Your task to perform on an android device: Open calendar and show me the first week of next month Image 0: 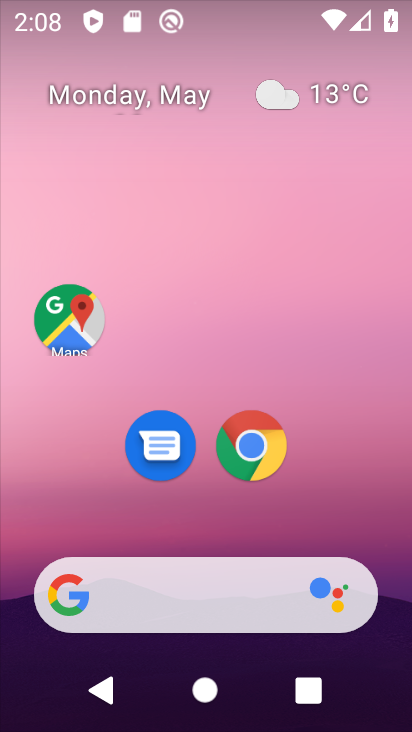
Step 0: drag from (349, 564) to (319, 3)
Your task to perform on an android device: Open calendar and show me the first week of next month Image 1: 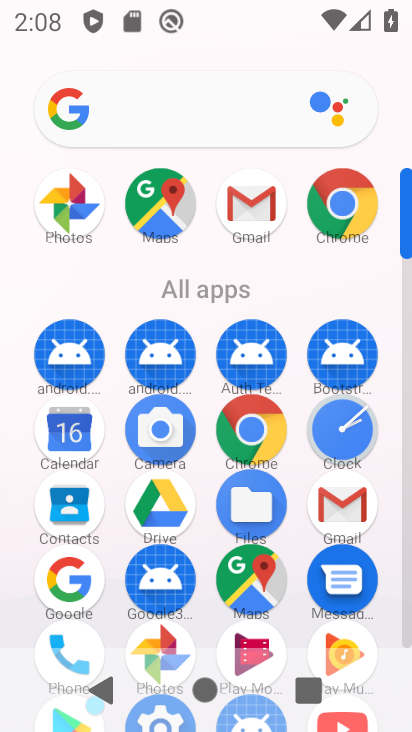
Step 1: click (81, 426)
Your task to perform on an android device: Open calendar and show me the first week of next month Image 2: 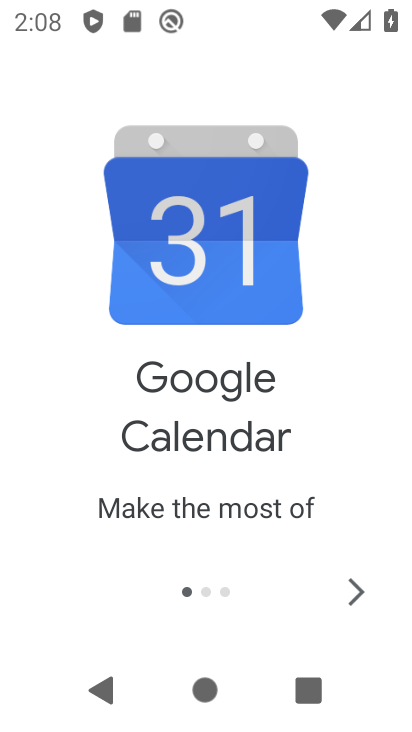
Step 2: click (350, 595)
Your task to perform on an android device: Open calendar and show me the first week of next month Image 3: 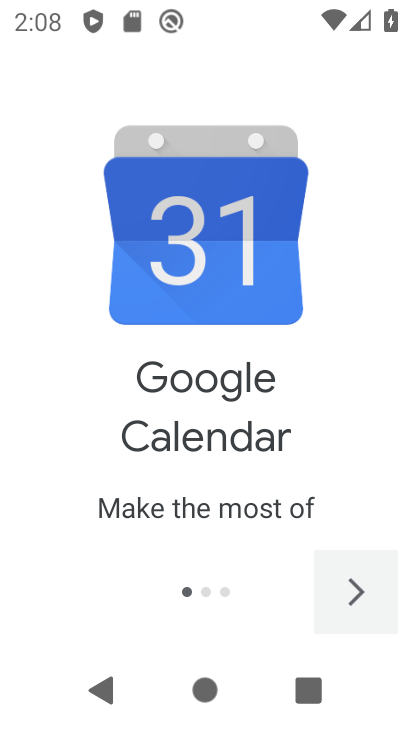
Step 3: click (351, 595)
Your task to perform on an android device: Open calendar and show me the first week of next month Image 4: 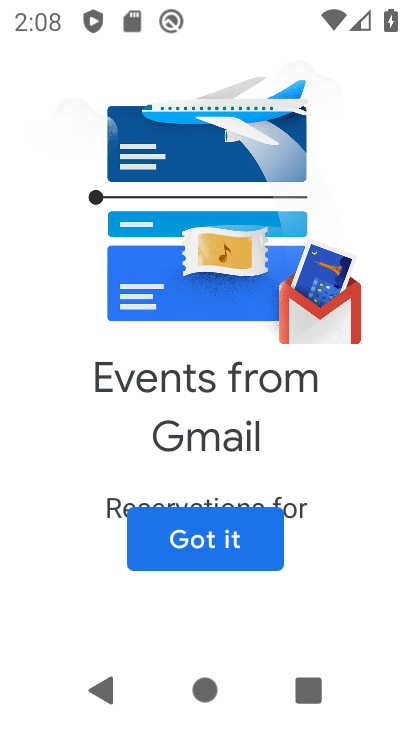
Step 4: click (209, 532)
Your task to perform on an android device: Open calendar and show me the first week of next month Image 5: 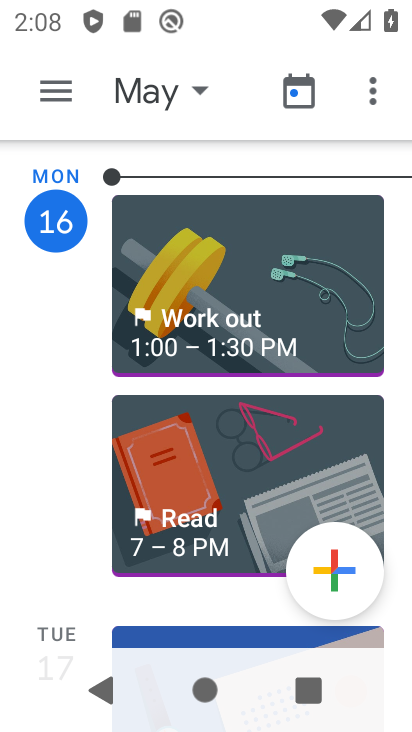
Step 5: click (46, 91)
Your task to perform on an android device: Open calendar and show me the first week of next month Image 6: 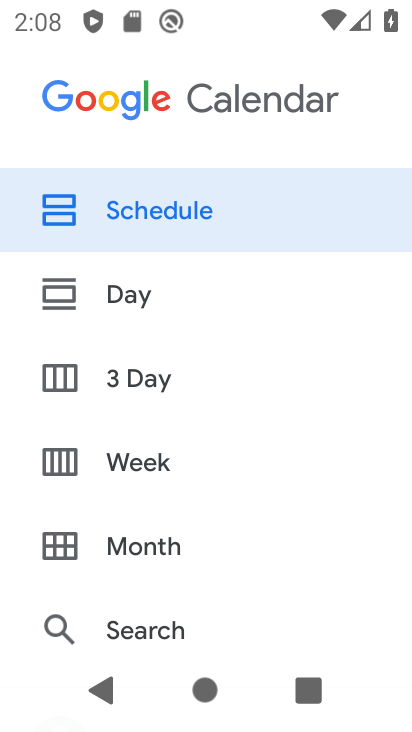
Step 6: click (162, 494)
Your task to perform on an android device: Open calendar and show me the first week of next month Image 7: 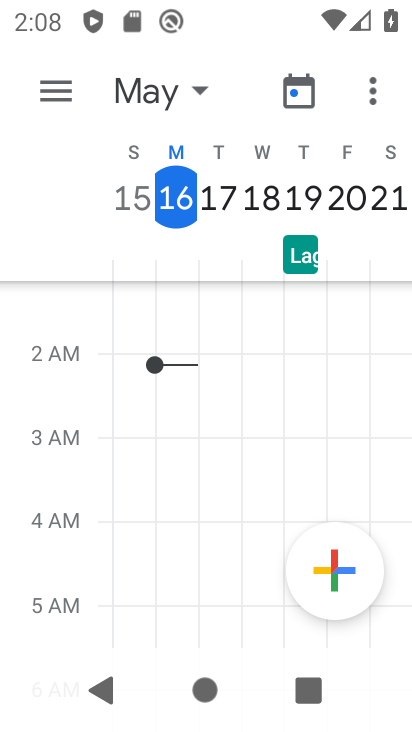
Step 7: click (171, 92)
Your task to perform on an android device: Open calendar and show me the first week of next month Image 8: 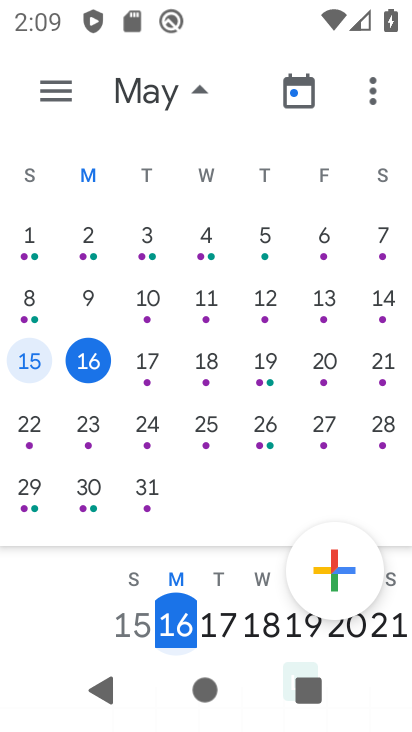
Step 8: drag from (358, 391) to (13, 273)
Your task to perform on an android device: Open calendar and show me the first week of next month Image 9: 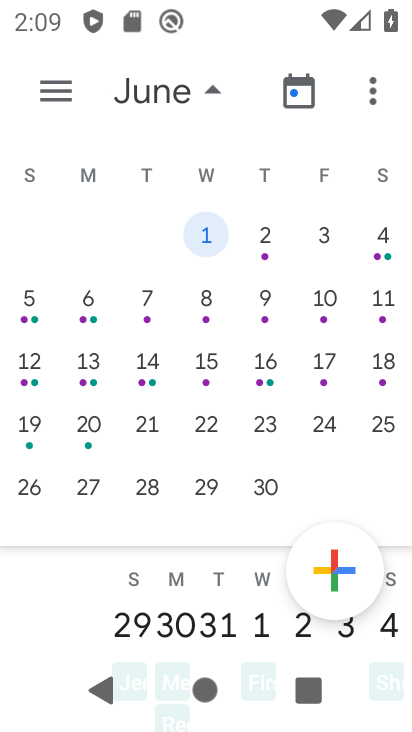
Step 9: click (103, 303)
Your task to perform on an android device: Open calendar and show me the first week of next month Image 10: 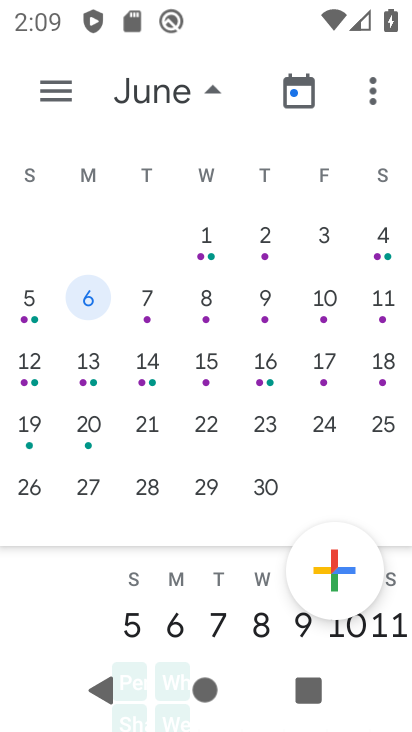
Step 10: task complete